Your task to perform on an android device: Go to Wikipedia Image 0: 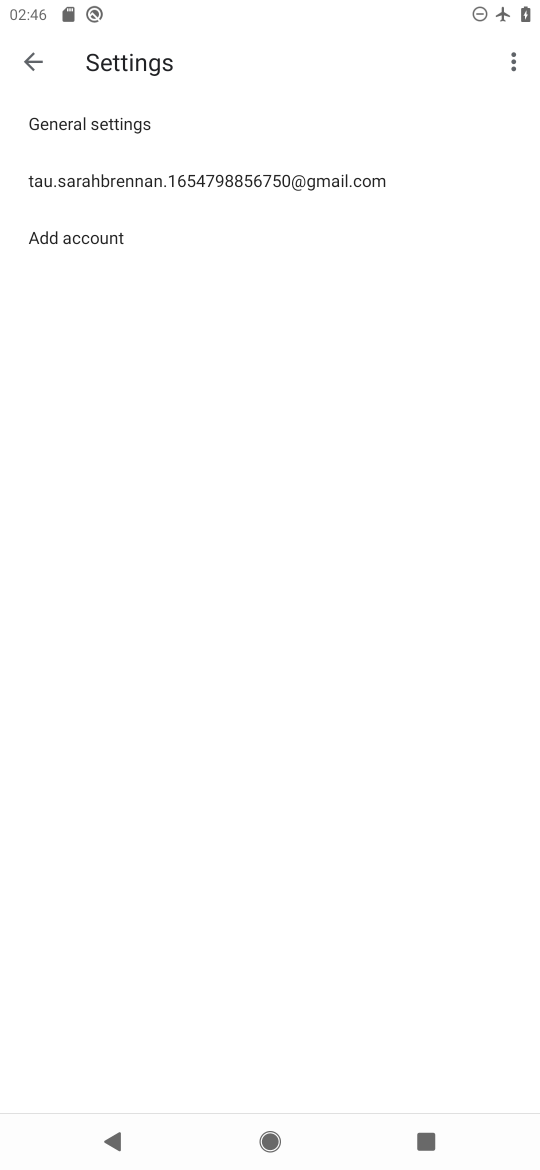
Step 0: press home button
Your task to perform on an android device: Go to Wikipedia Image 1: 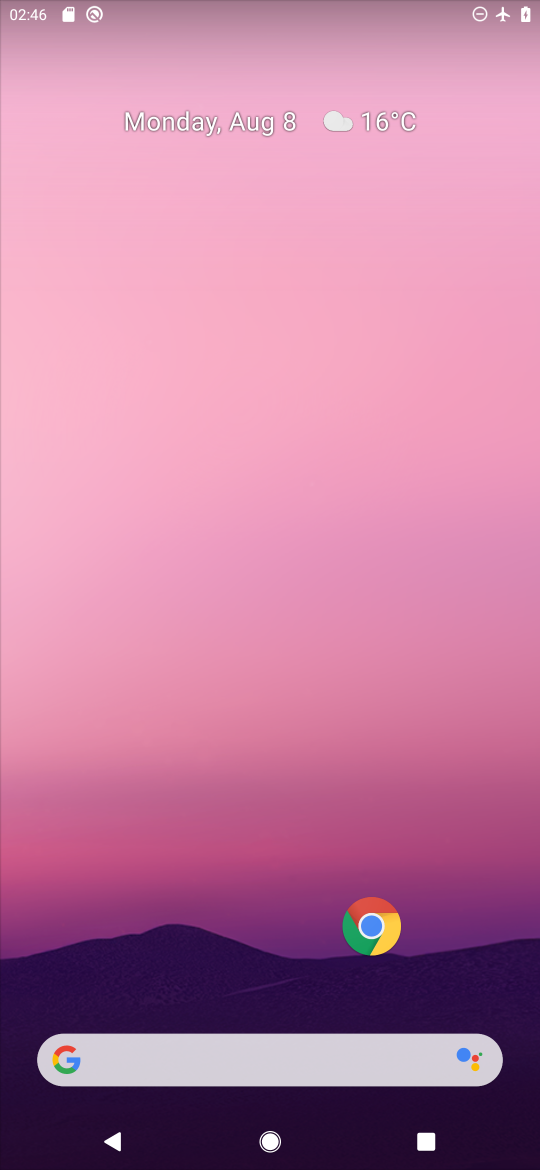
Step 1: drag from (232, 956) to (239, 137)
Your task to perform on an android device: Go to Wikipedia Image 2: 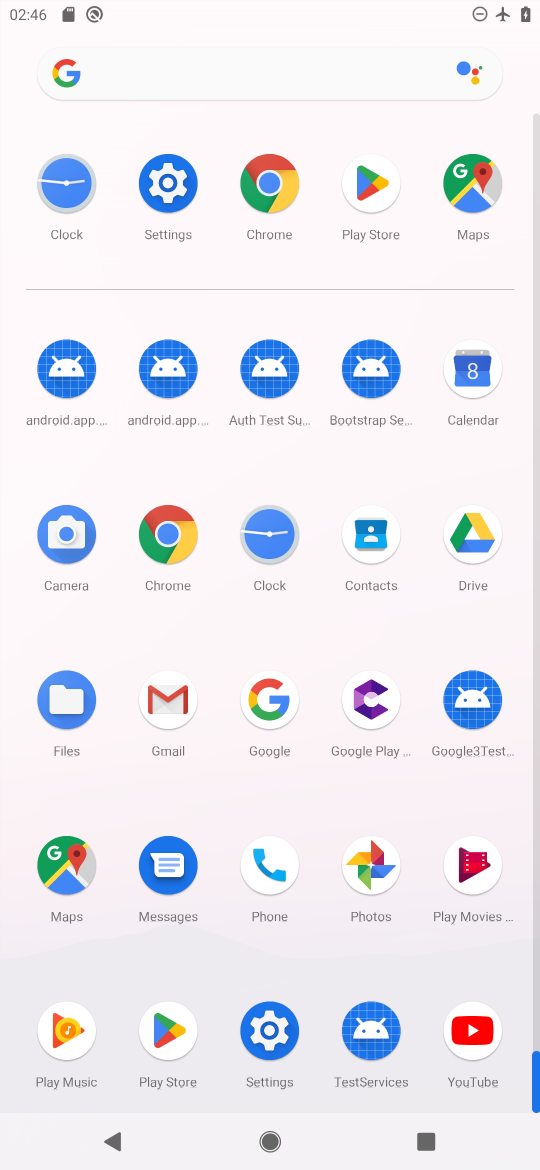
Step 2: click (162, 528)
Your task to perform on an android device: Go to Wikipedia Image 3: 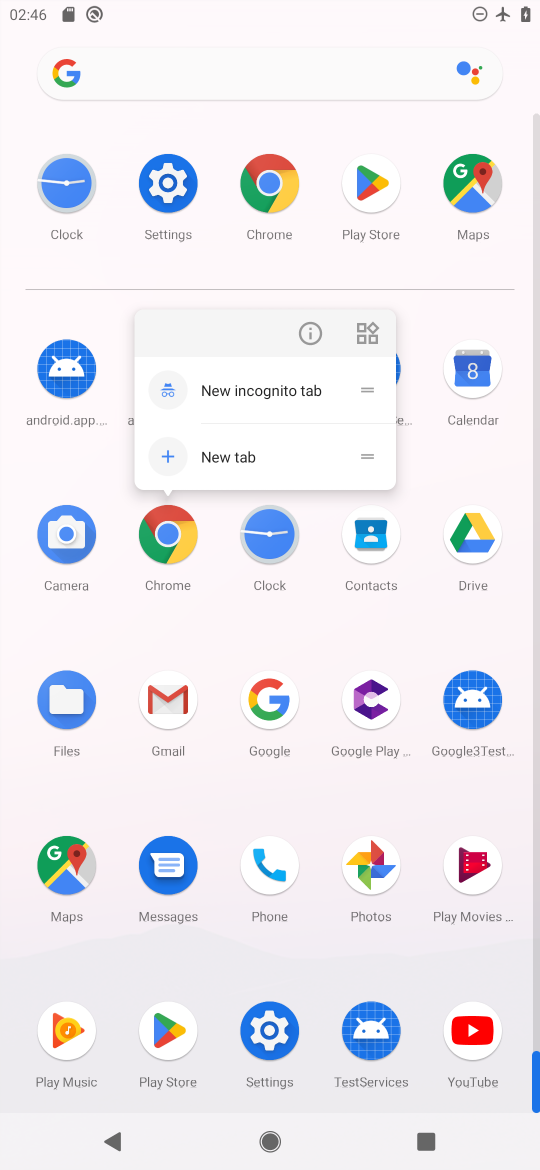
Step 3: click (174, 515)
Your task to perform on an android device: Go to Wikipedia Image 4: 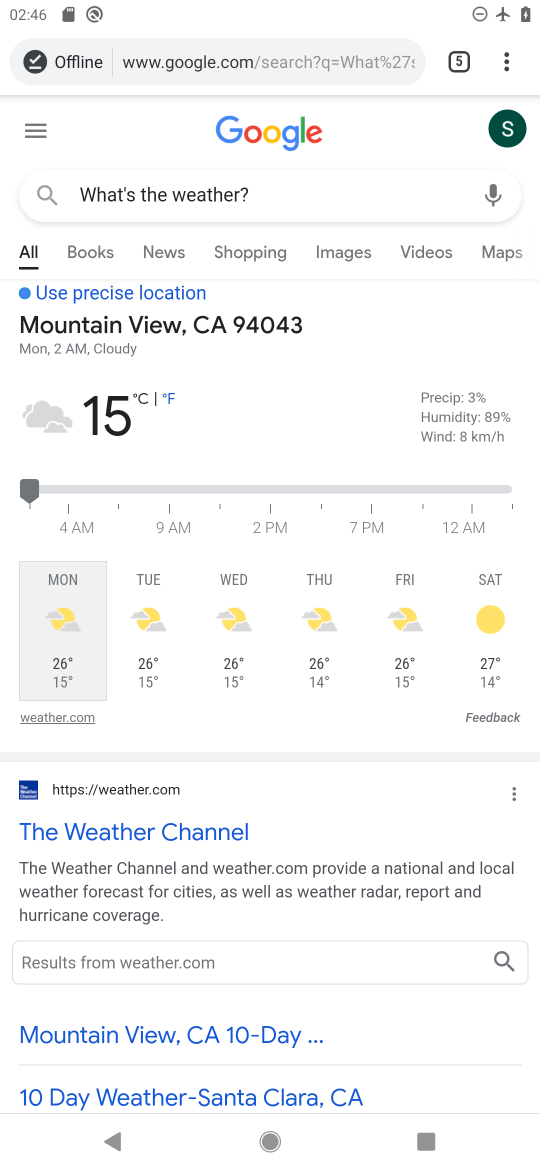
Step 4: click (526, 60)
Your task to perform on an android device: Go to Wikipedia Image 5: 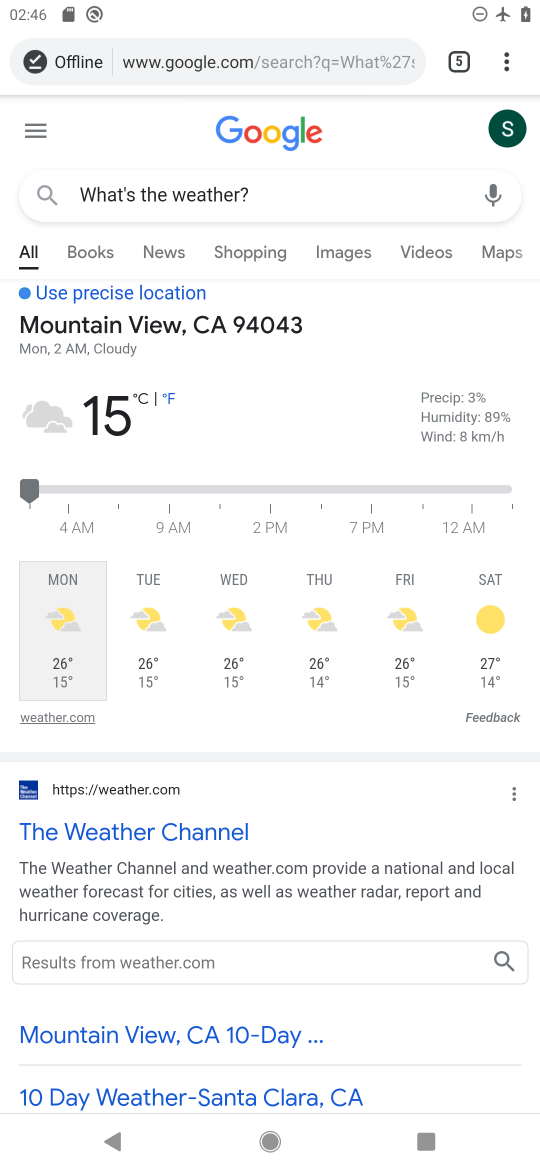
Step 5: click (520, 58)
Your task to perform on an android device: Go to Wikipedia Image 6: 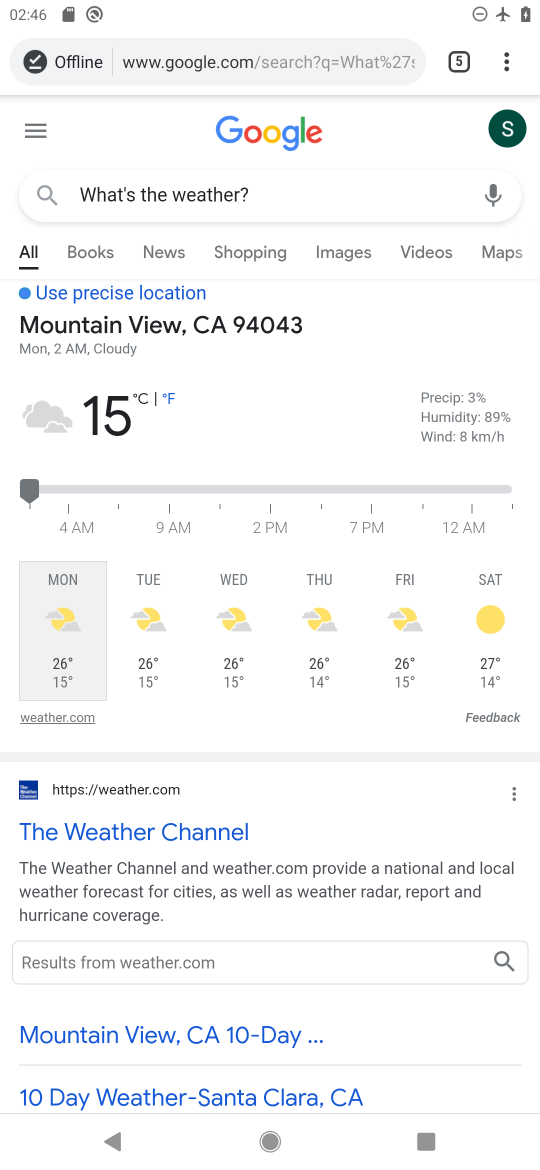
Step 6: click (505, 52)
Your task to perform on an android device: Go to Wikipedia Image 7: 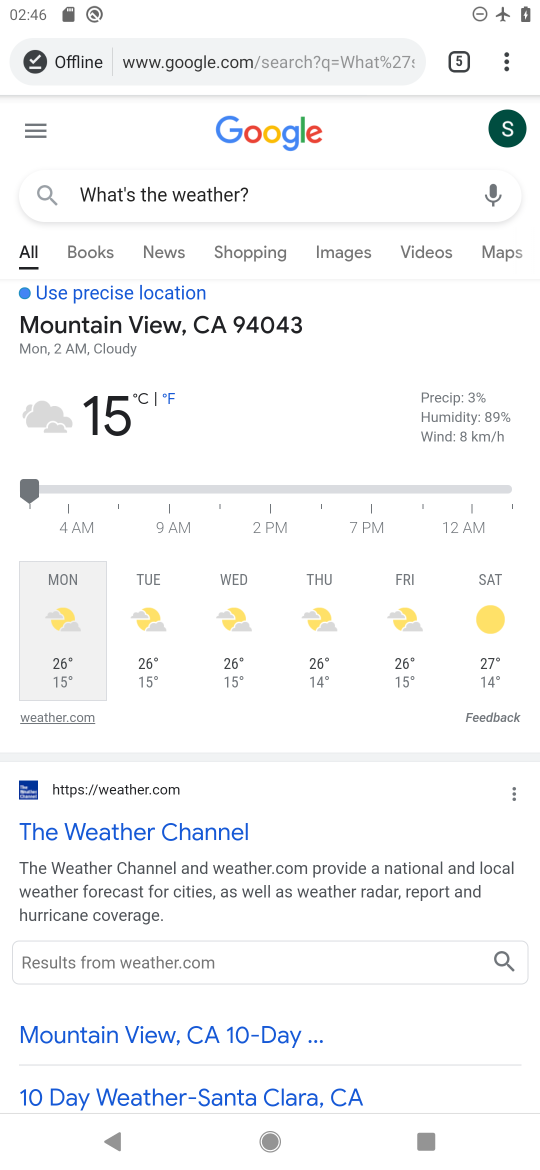
Step 7: click (514, 63)
Your task to perform on an android device: Go to Wikipedia Image 8: 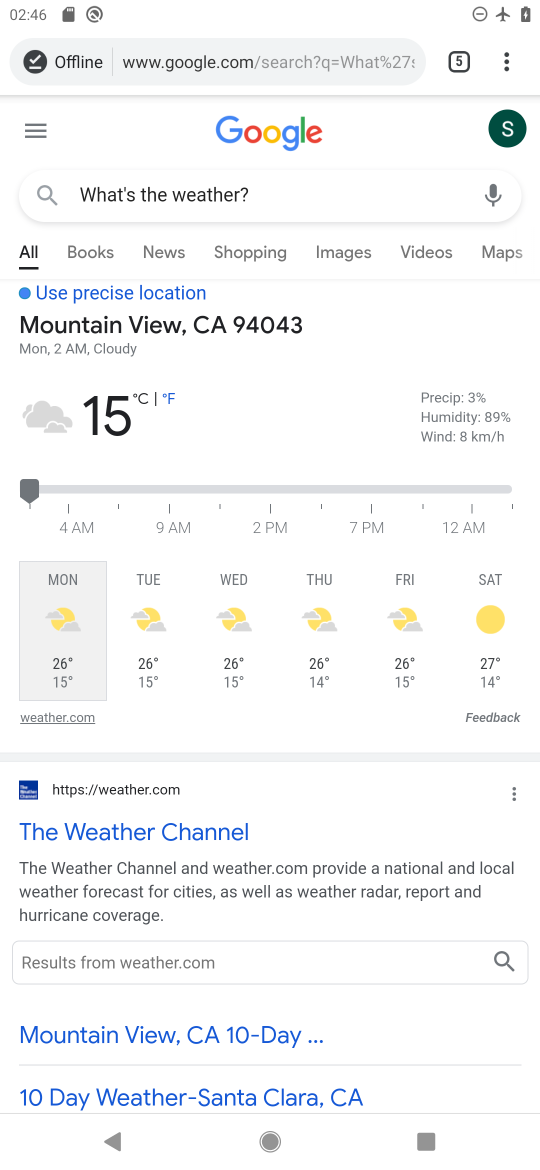
Step 8: click (514, 63)
Your task to perform on an android device: Go to Wikipedia Image 9: 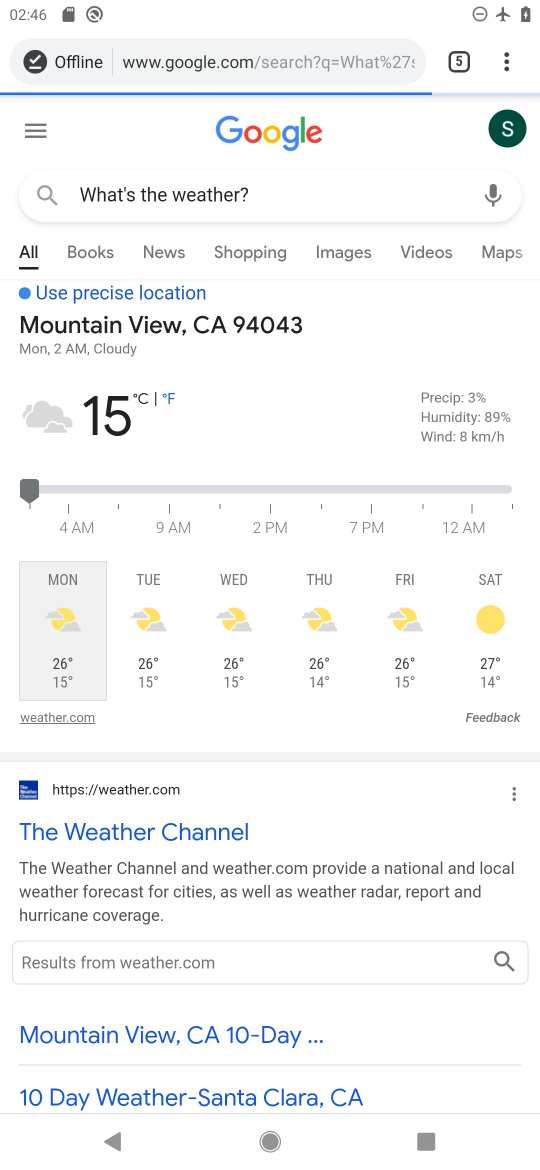
Step 9: click (514, 63)
Your task to perform on an android device: Go to Wikipedia Image 10: 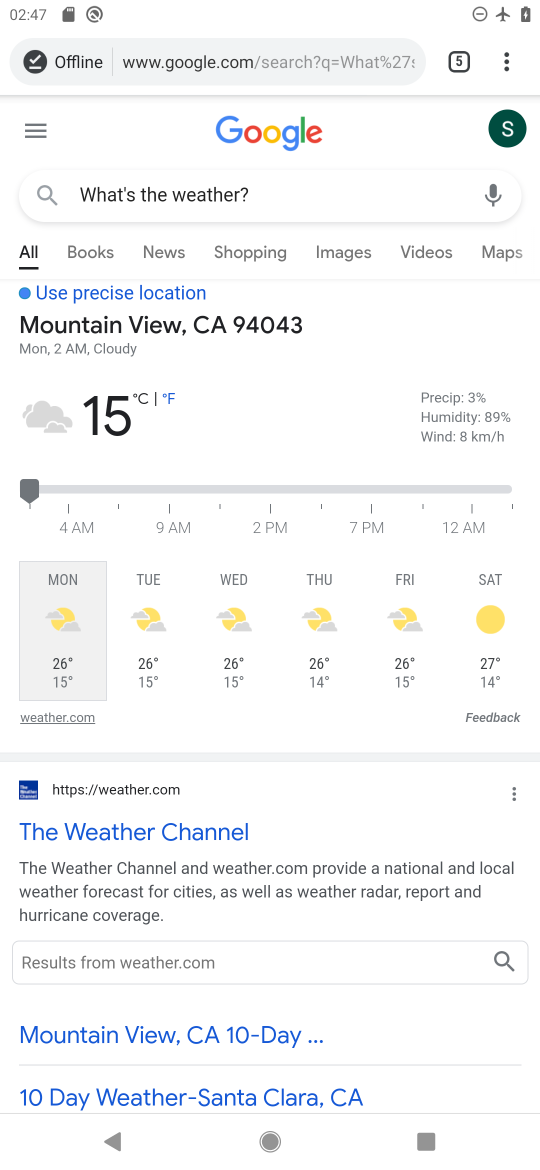
Step 10: click (511, 63)
Your task to perform on an android device: Go to Wikipedia Image 11: 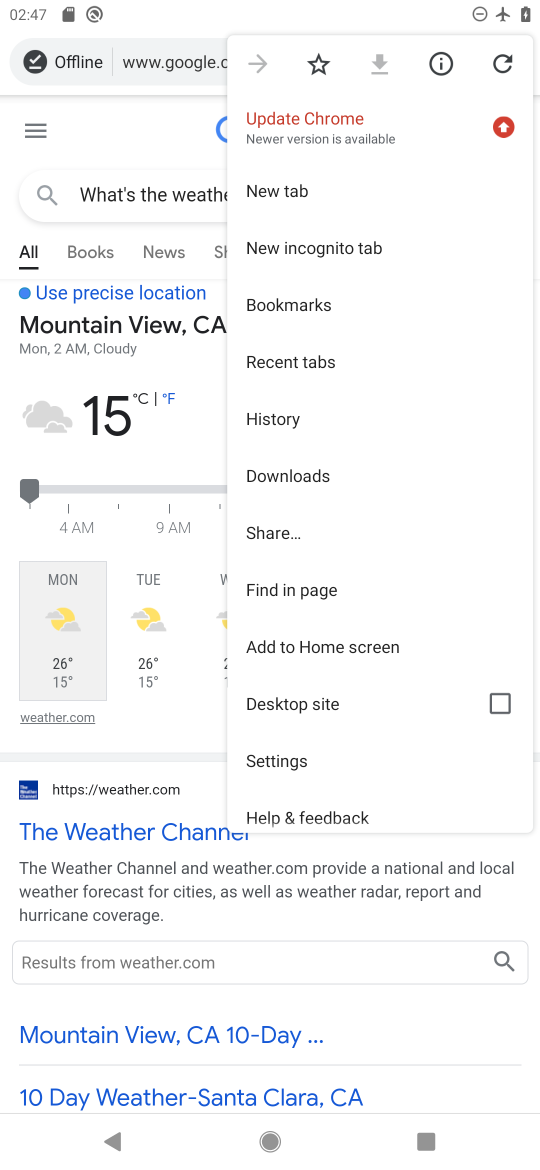
Step 11: click (274, 200)
Your task to perform on an android device: Go to Wikipedia Image 12: 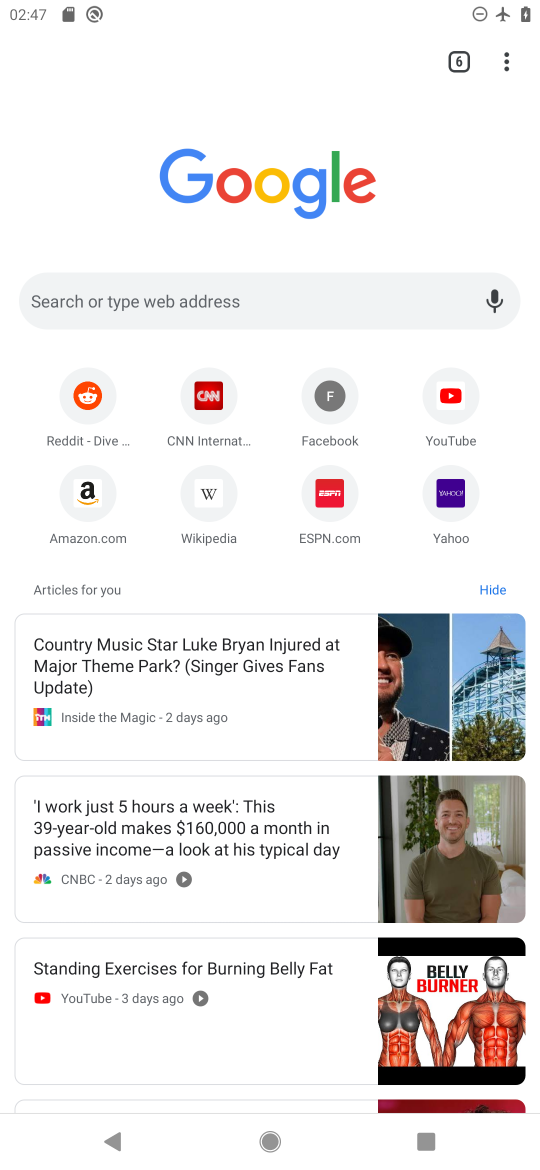
Step 12: click (196, 483)
Your task to perform on an android device: Go to Wikipedia Image 13: 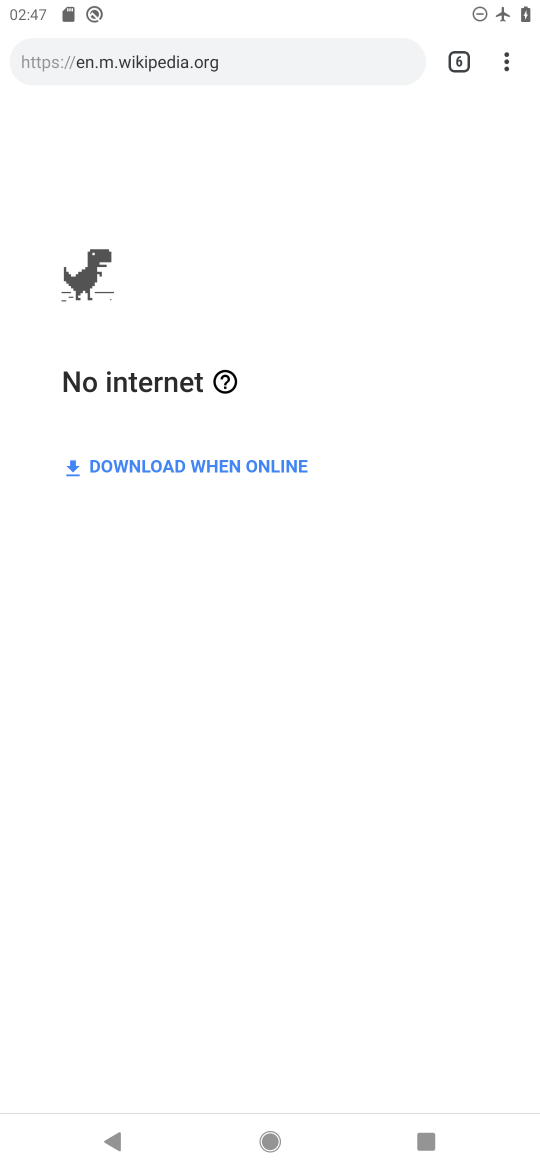
Step 13: task complete